Your task to perform on an android device: Do I have any events this weekend? Image 0: 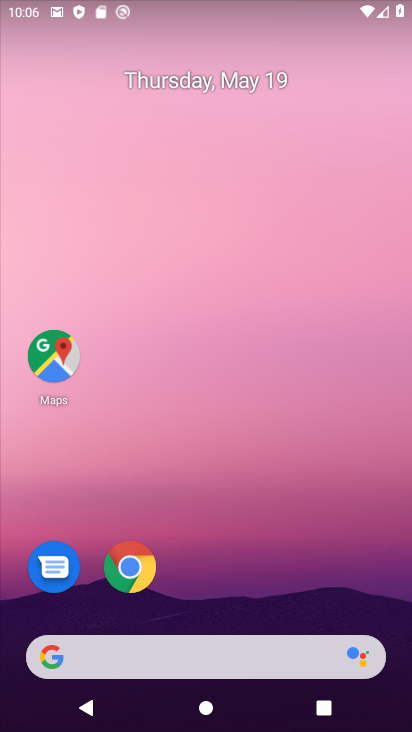
Step 0: drag from (238, 569) to (154, 95)
Your task to perform on an android device: Do I have any events this weekend? Image 1: 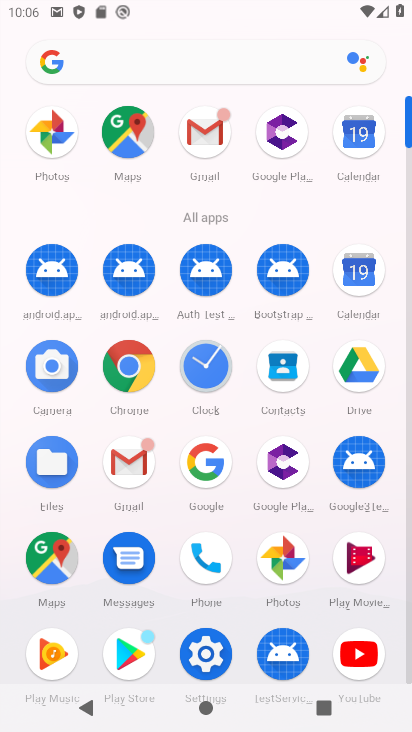
Step 1: click (353, 271)
Your task to perform on an android device: Do I have any events this weekend? Image 2: 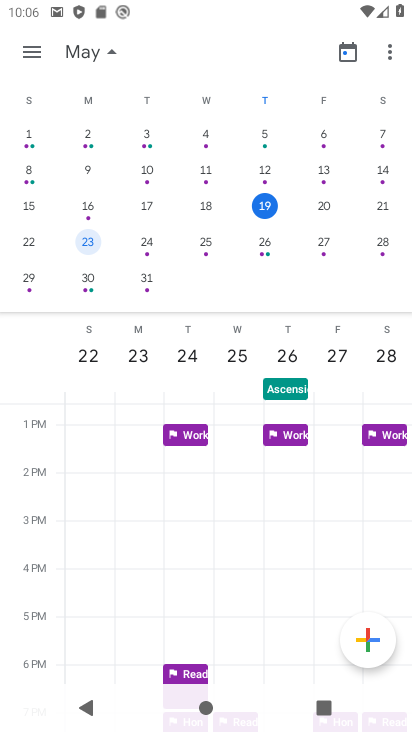
Step 2: click (269, 203)
Your task to perform on an android device: Do I have any events this weekend? Image 3: 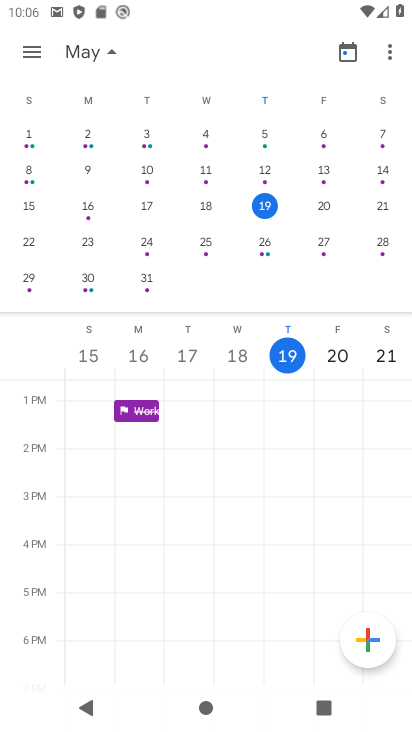
Step 3: task complete